Your task to perform on an android device: delete browsing data in the chrome app Image 0: 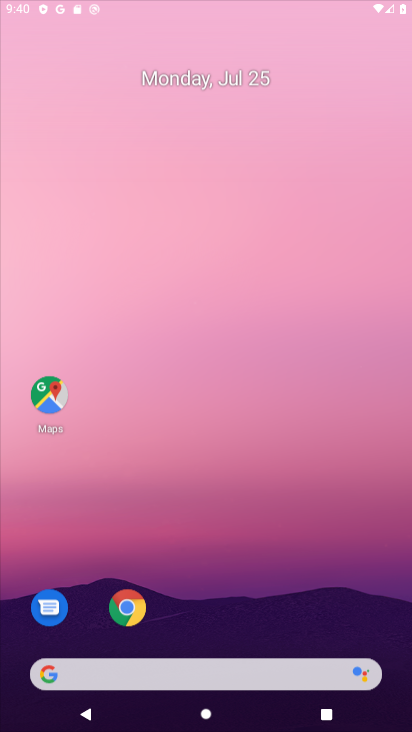
Step 0: drag from (219, 474) to (259, 93)
Your task to perform on an android device: delete browsing data in the chrome app Image 1: 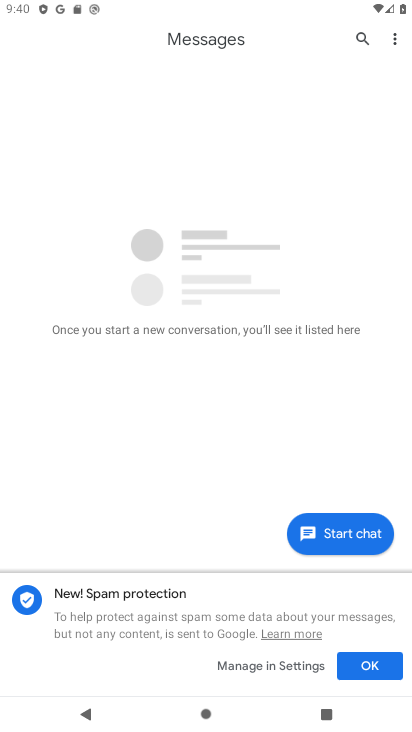
Step 1: press home button
Your task to perform on an android device: delete browsing data in the chrome app Image 2: 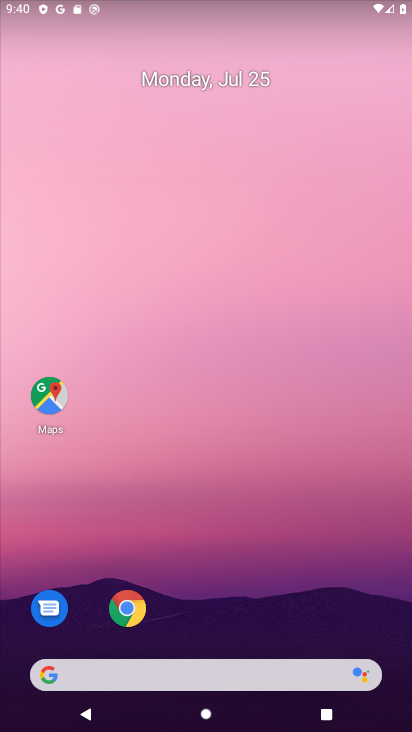
Step 2: drag from (214, 645) to (285, 54)
Your task to perform on an android device: delete browsing data in the chrome app Image 3: 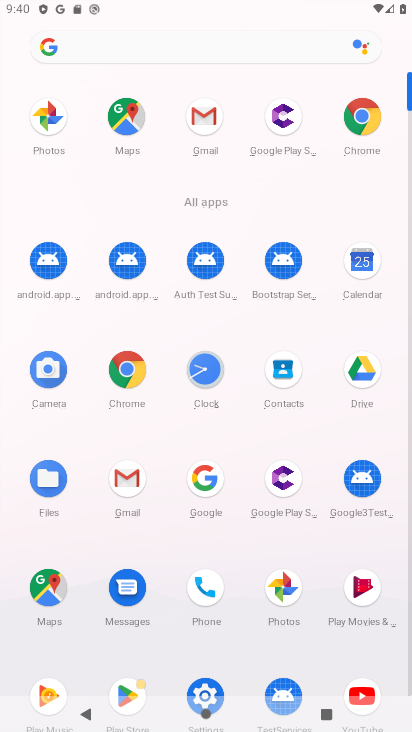
Step 3: click (127, 378)
Your task to perform on an android device: delete browsing data in the chrome app Image 4: 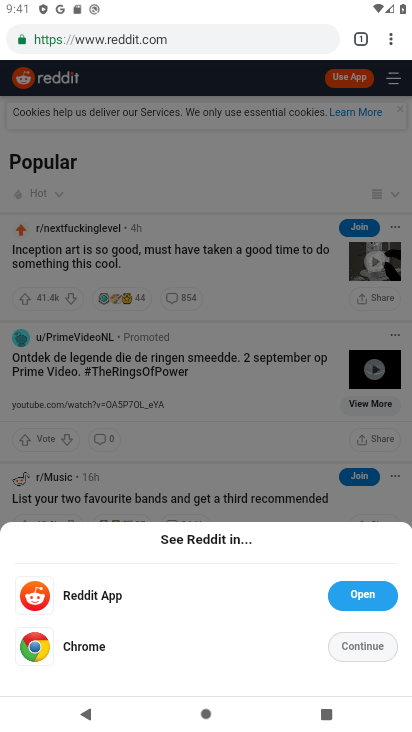
Step 4: click (393, 41)
Your task to perform on an android device: delete browsing data in the chrome app Image 5: 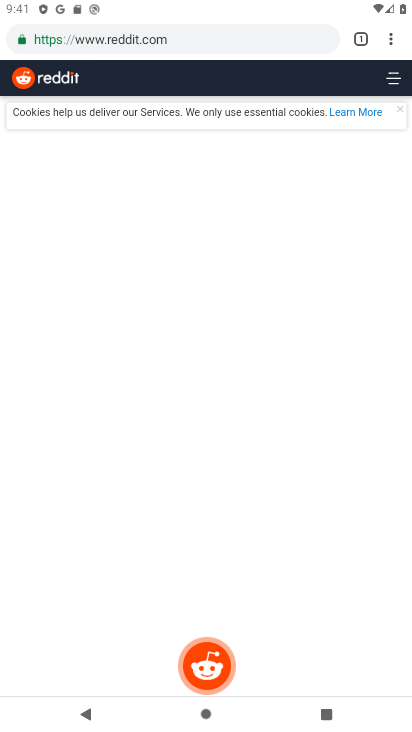
Step 5: click (393, 41)
Your task to perform on an android device: delete browsing data in the chrome app Image 6: 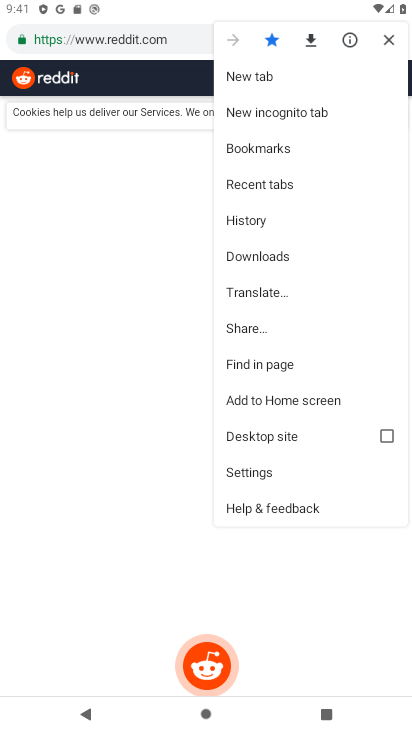
Step 6: click (249, 226)
Your task to perform on an android device: delete browsing data in the chrome app Image 7: 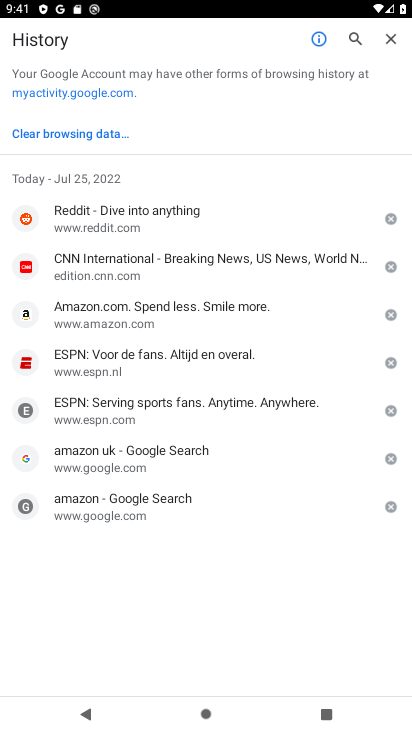
Step 7: click (76, 131)
Your task to perform on an android device: delete browsing data in the chrome app Image 8: 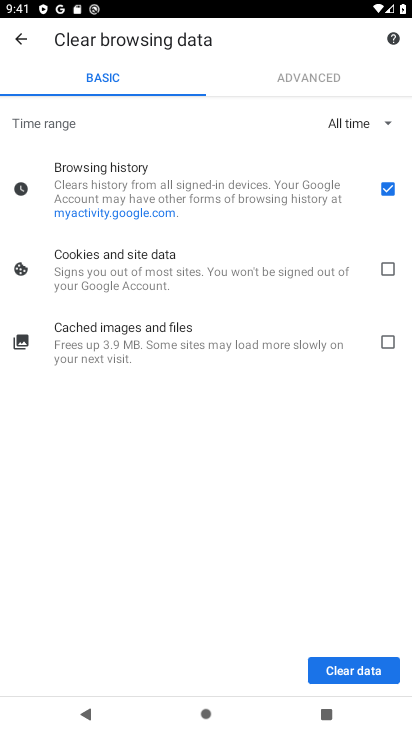
Step 8: click (351, 673)
Your task to perform on an android device: delete browsing data in the chrome app Image 9: 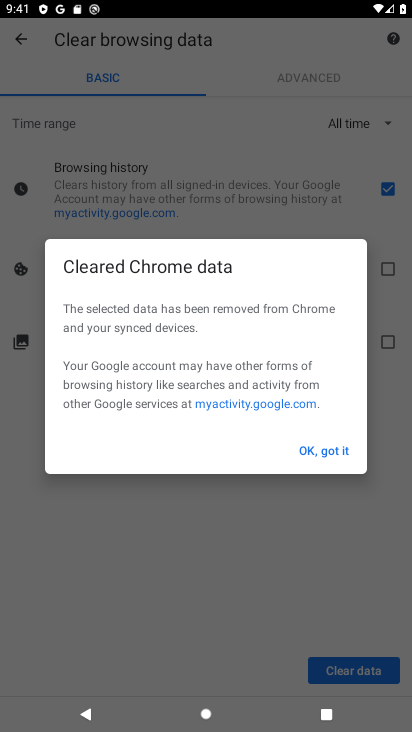
Step 9: click (337, 447)
Your task to perform on an android device: delete browsing data in the chrome app Image 10: 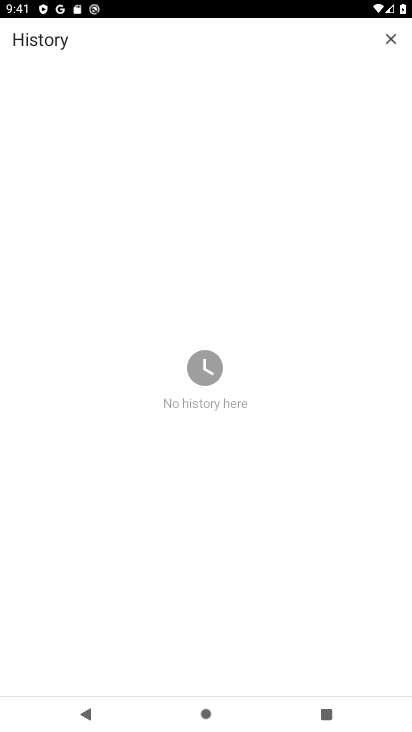
Step 10: task complete